Your task to perform on an android device: Open ESPN.com Image 0: 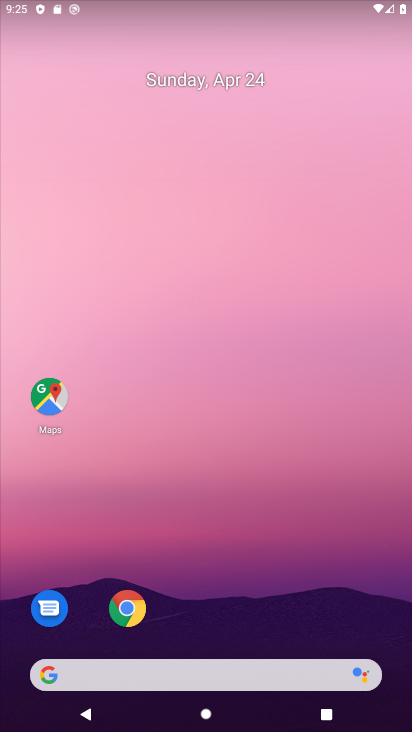
Step 0: drag from (352, 689) to (216, 111)
Your task to perform on an android device: Open ESPN.com Image 1: 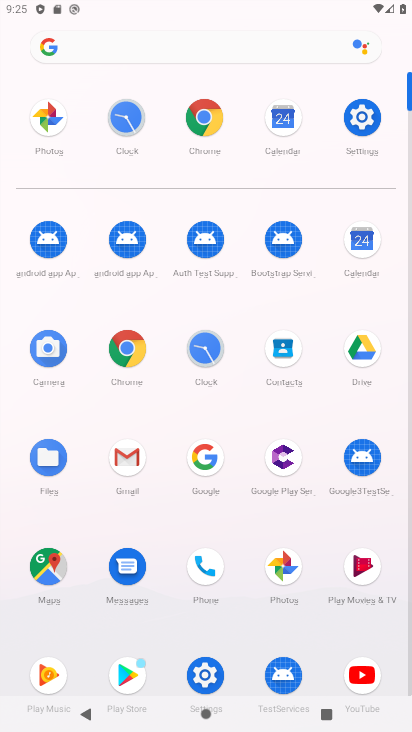
Step 1: drag from (219, 93) to (205, 131)
Your task to perform on an android device: Open ESPN.com Image 2: 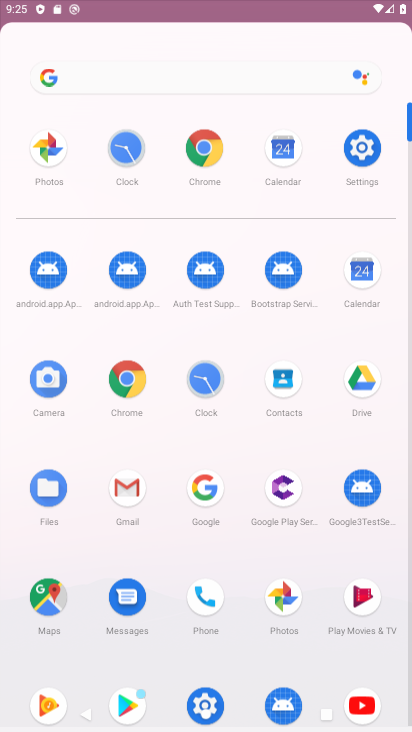
Step 2: click (205, 131)
Your task to perform on an android device: Open ESPN.com Image 3: 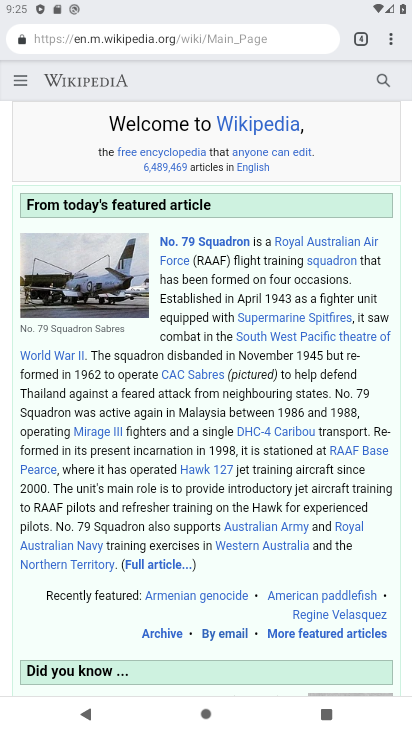
Step 3: click (387, 37)
Your task to perform on an android device: Open ESPN.com Image 4: 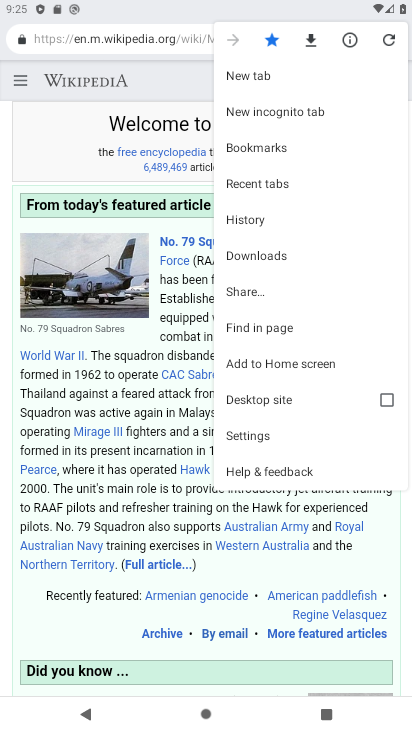
Step 4: click (252, 81)
Your task to perform on an android device: Open ESPN.com Image 5: 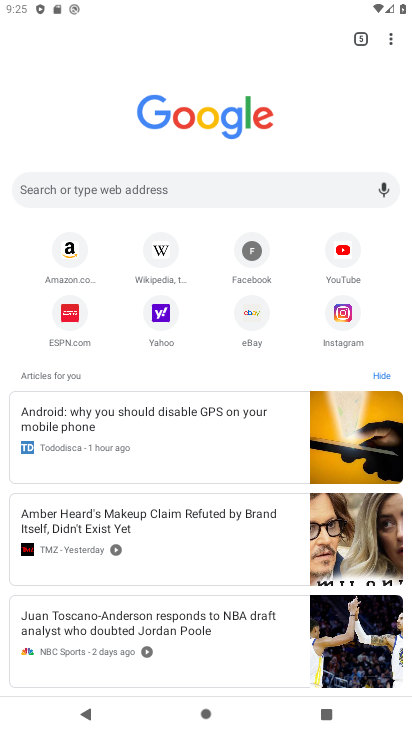
Step 5: click (72, 305)
Your task to perform on an android device: Open ESPN.com Image 6: 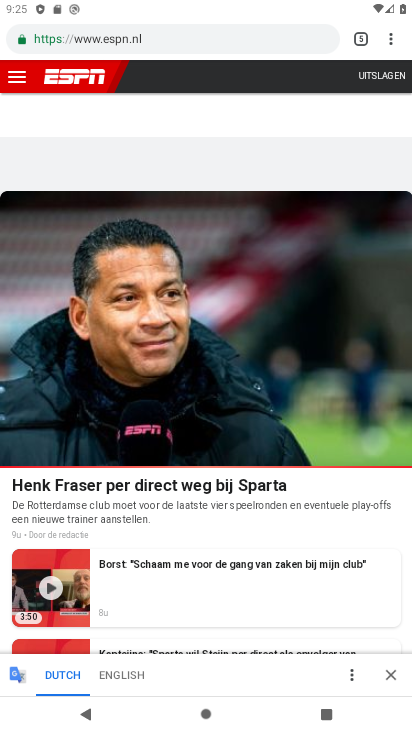
Step 6: task complete